Your task to perform on an android device: change the clock display to digital Image 0: 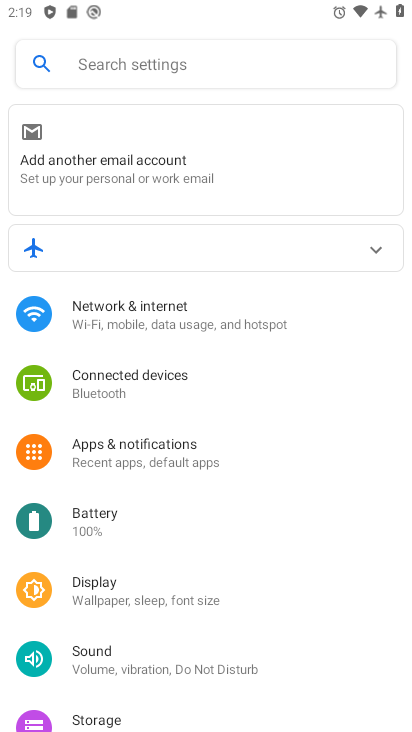
Step 0: press back button
Your task to perform on an android device: change the clock display to digital Image 1: 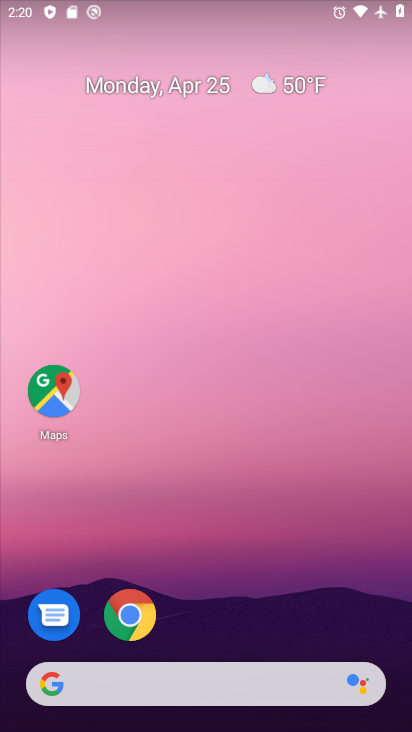
Step 1: drag from (226, 530) to (172, 76)
Your task to perform on an android device: change the clock display to digital Image 2: 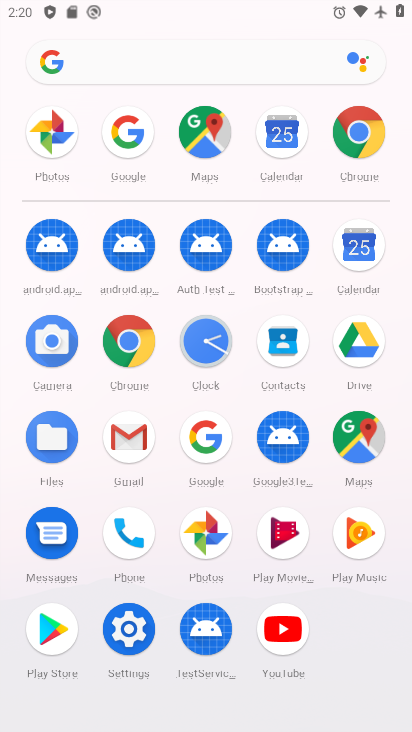
Step 2: click (207, 341)
Your task to perform on an android device: change the clock display to digital Image 3: 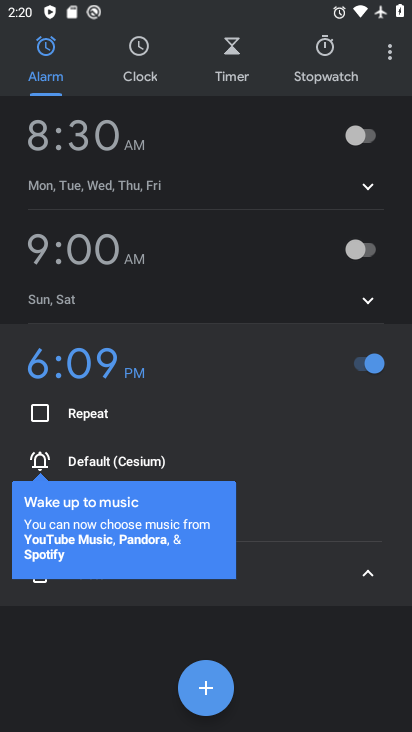
Step 3: click (389, 54)
Your task to perform on an android device: change the clock display to digital Image 4: 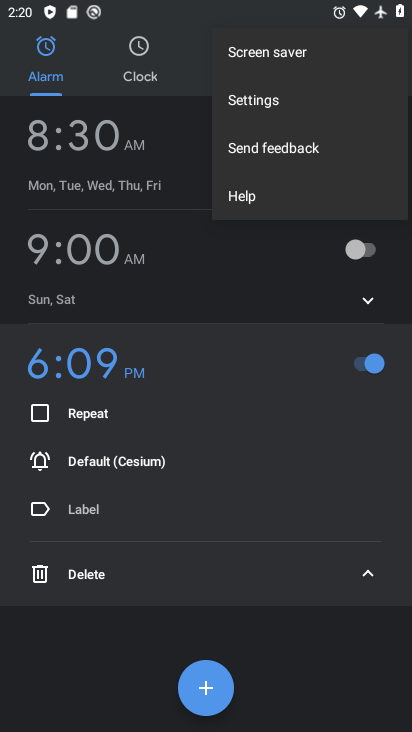
Step 4: click (267, 104)
Your task to perform on an android device: change the clock display to digital Image 5: 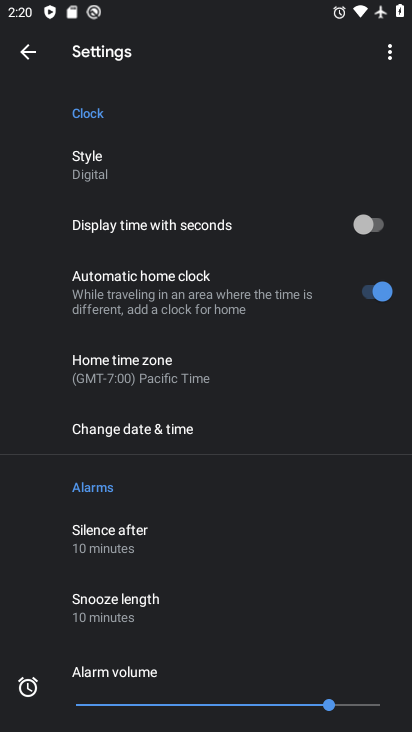
Step 5: click (80, 170)
Your task to perform on an android device: change the clock display to digital Image 6: 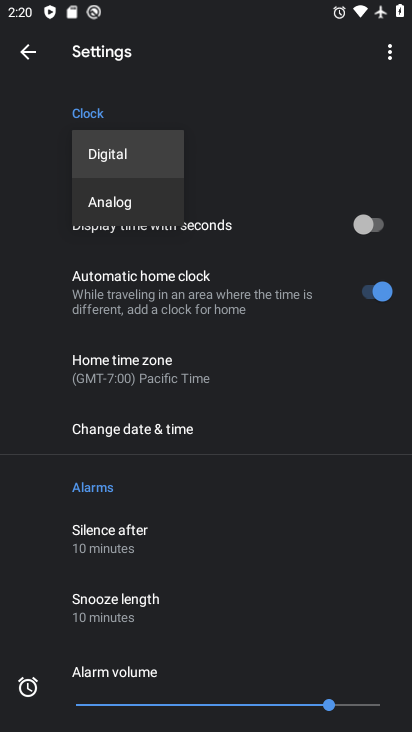
Step 6: click (124, 149)
Your task to perform on an android device: change the clock display to digital Image 7: 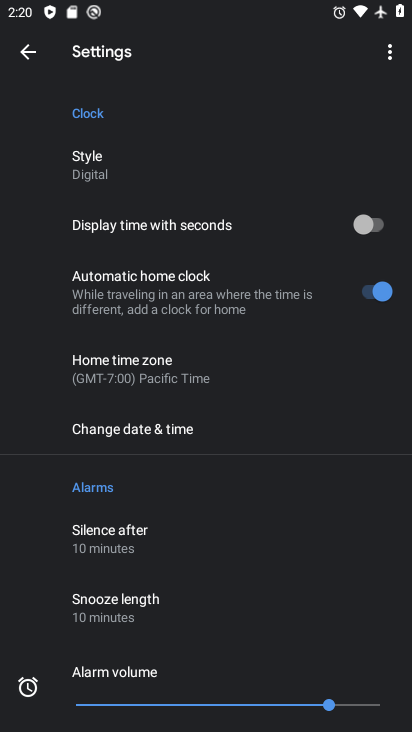
Step 7: task complete